Your task to perform on an android device: Open the stopwatch Image 0: 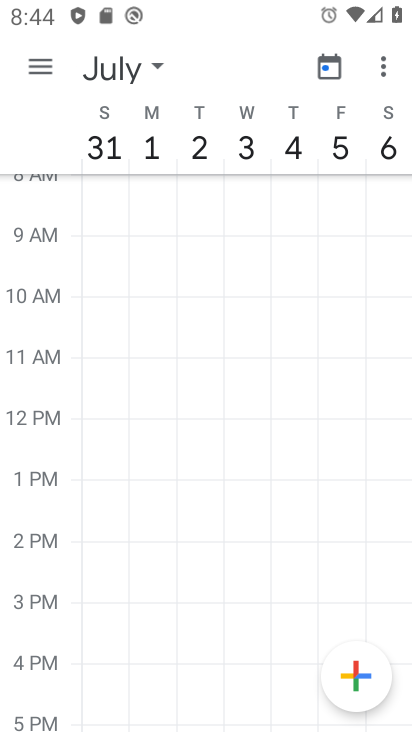
Step 0: press back button
Your task to perform on an android device: Open the stopwatch Image 1: 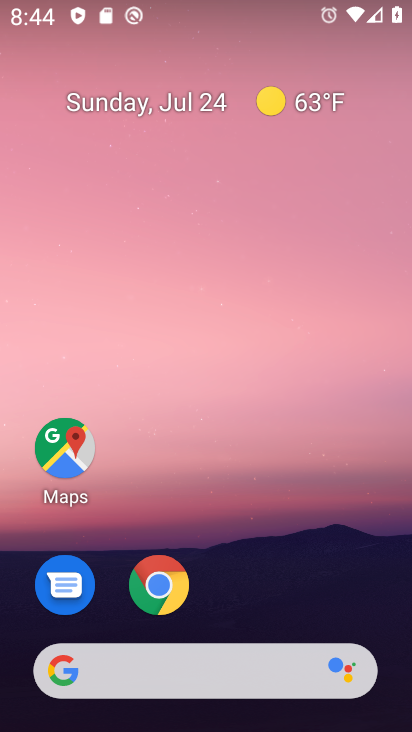
Step 1: drag from (250, 599) to (277, 190)
Your task to perform on an android device: Open the stopwatch Image 2: 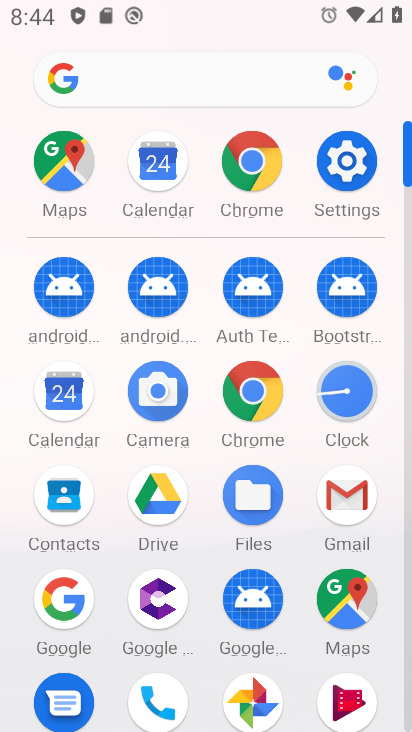
Step 2: click (344, 385)
Your task to perform on an android device: Open the stopwatch Image 3: 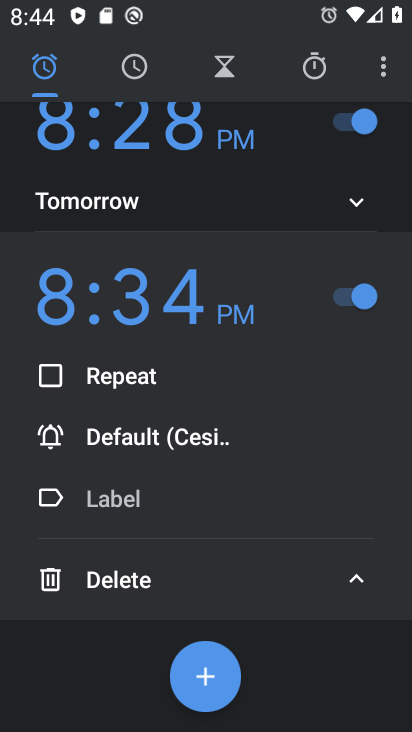
Step 3: click (317, 65)
Your task to perform on an android device: Open the stopwatch Image 4: 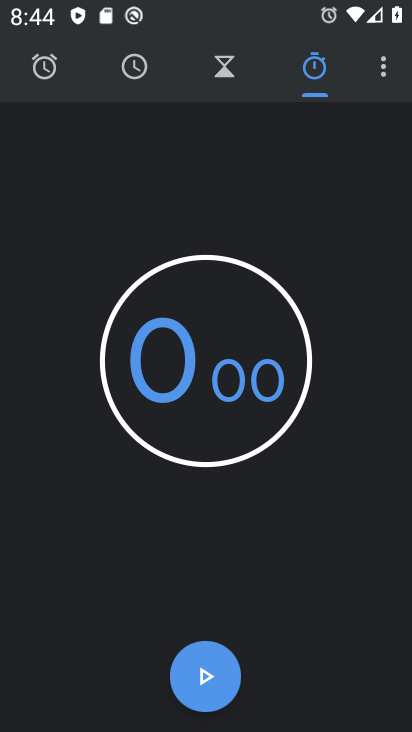
Step 4: click (209, 676)
Your task to perform on an android device: Open the stopwatch Image 5: 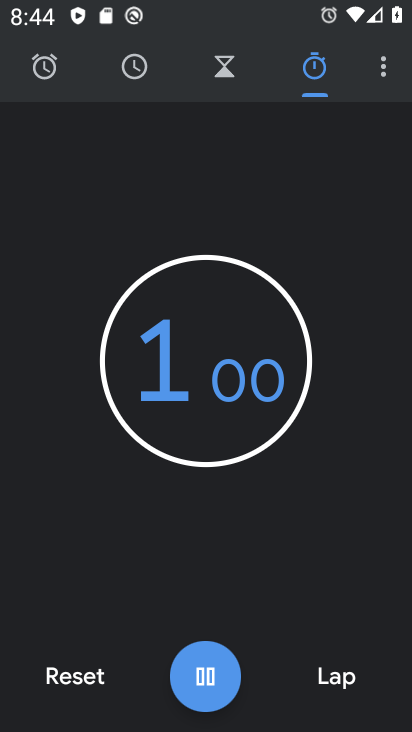
Step 5: click (209, 676)
Your task to perform on an android device: Open the stopwatch Image 6: 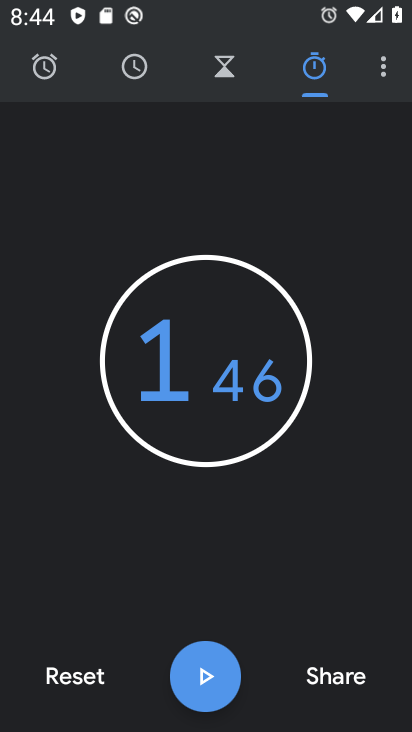
Step 6: task complete